Your task to perform on an android device: check data usage Image 0: 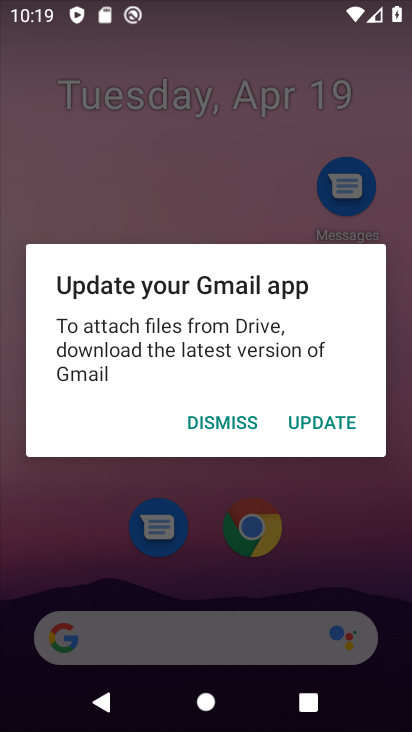
Step 0: press home button
Your task to perform on an android device: check data usage Image 1: 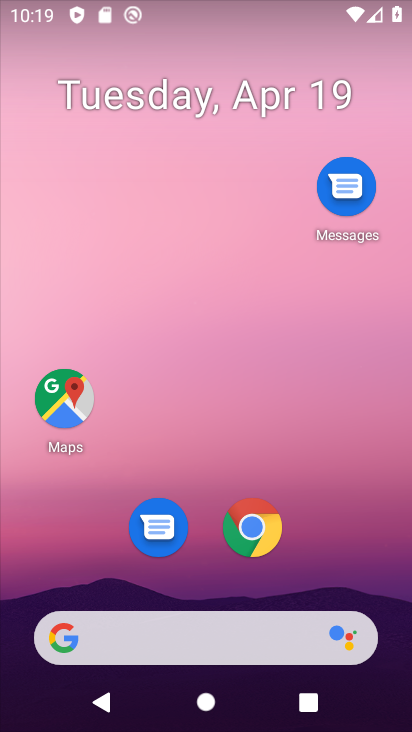
Step 1: drag from (325, 560) to (324, 217)
Your task to perform on an android device: check data usage Image 2: 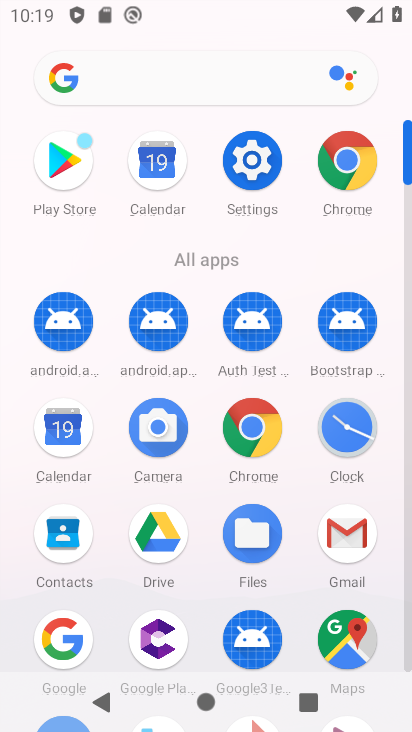
Step 2: click (243, 188)
Your task to perform on an android device: check data usage Image 3: 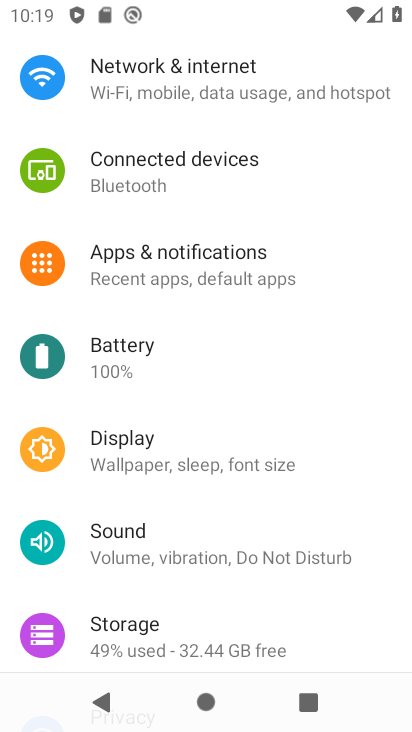
Step 3: drag from (265, 327) to (318, 250)
Your task to perform on an android device: check data usage Image 4: 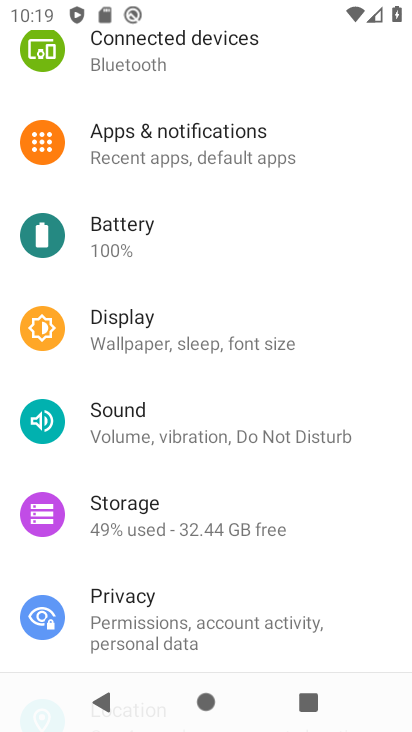
Step 4: click (263, 414)
Your task to perform on an android device: check data usage Image 5: 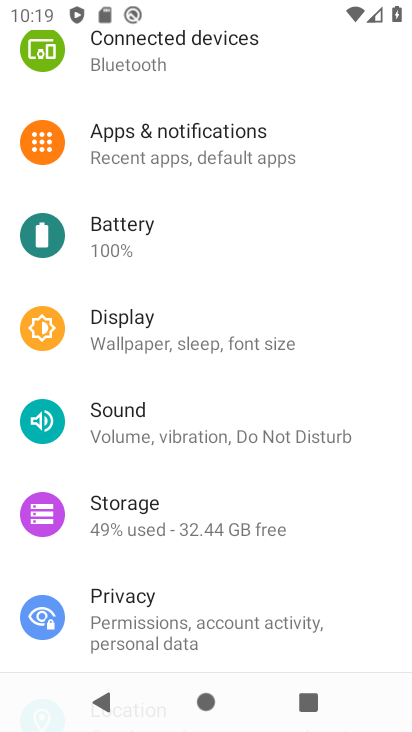
Step 5: drag from (320, 307) to (329, 444)
Your task to perform on an android device: check data usage Image 6: 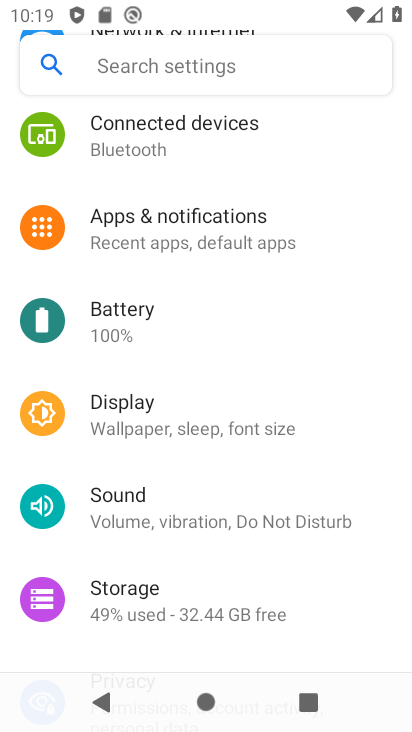
Step 6: drag from (284, 300) to (278, 518)
Your task to perform on an android device: check data usage Image 7: 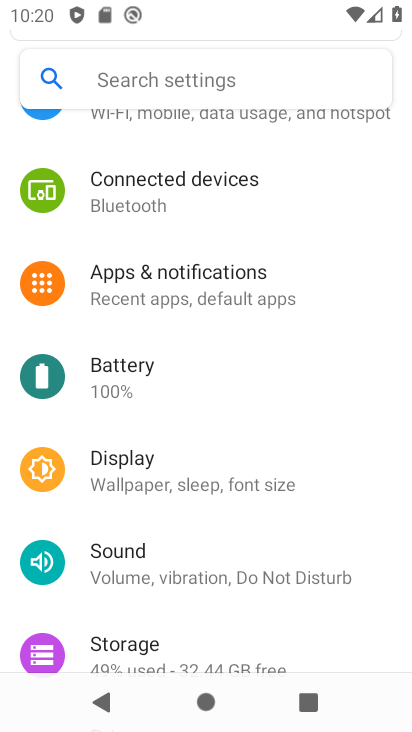
Step 7: drag from (308, 249) to (299, 444)
Your task to perform on an android device: check data usage Image 8: 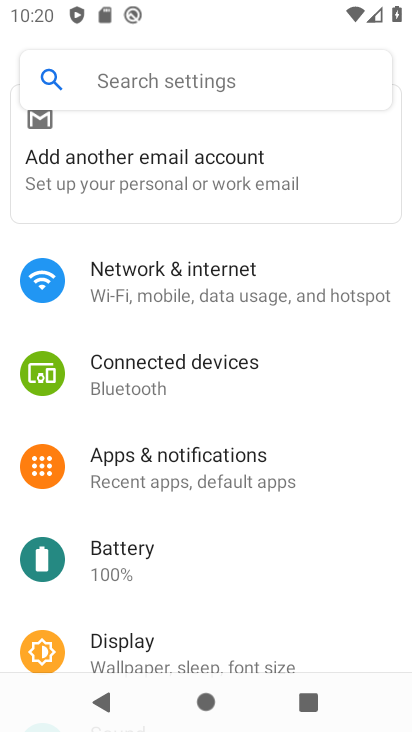
Step 8: click (225, 298)
Your task to perform on an android device: check data usage Image 9: 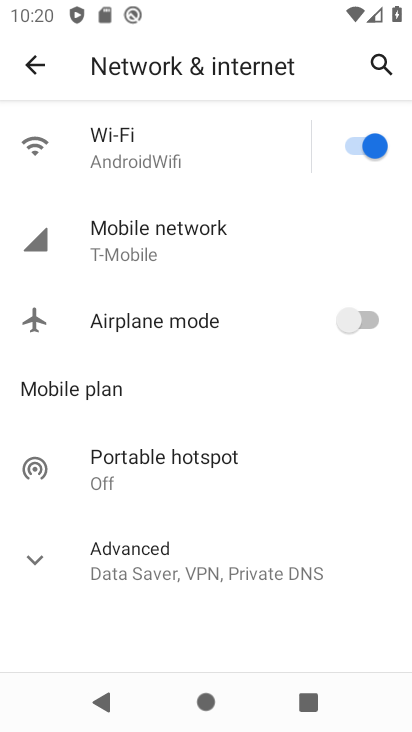
Step 9: click (193, 264)
Your task to perform on an android device: check data usage Image 10: 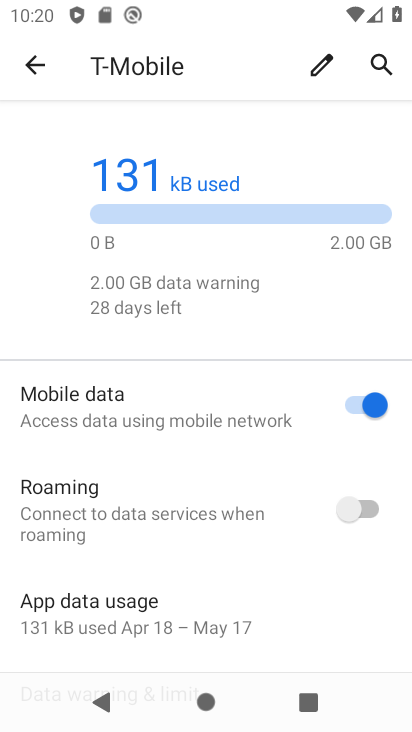
Step 10: click (125, 624)
Your task to perform on an android device: check data usage Image 11: 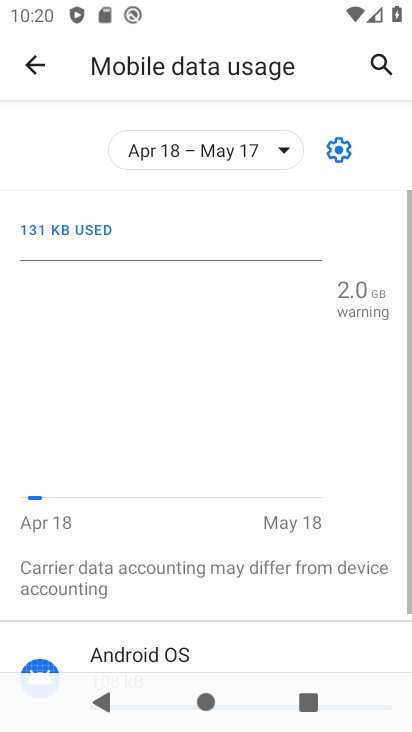
Step 11: task complete